Your task to perform on an android device: Open settings on Google Maps Image 0: 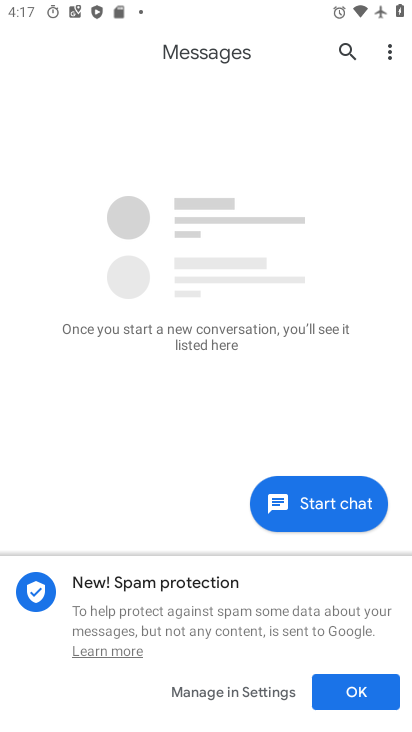
Step 0: press back button
Your task to perform on an android device: Open settings on Google Maps Image 1: 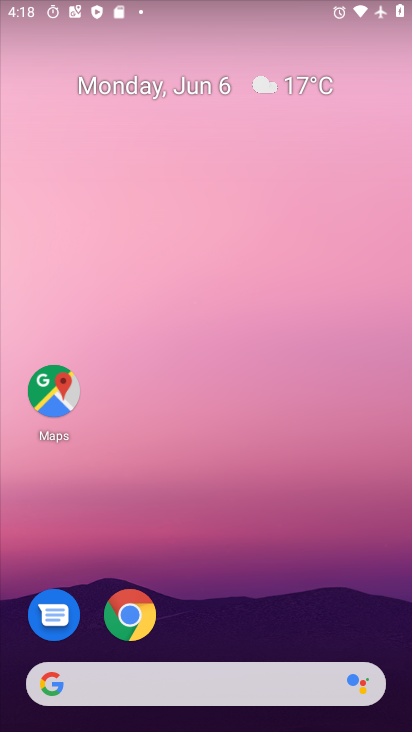
Step 1: click (48, 390)
Your task to perform on an android device: Open settings on Google Maps Image 2: 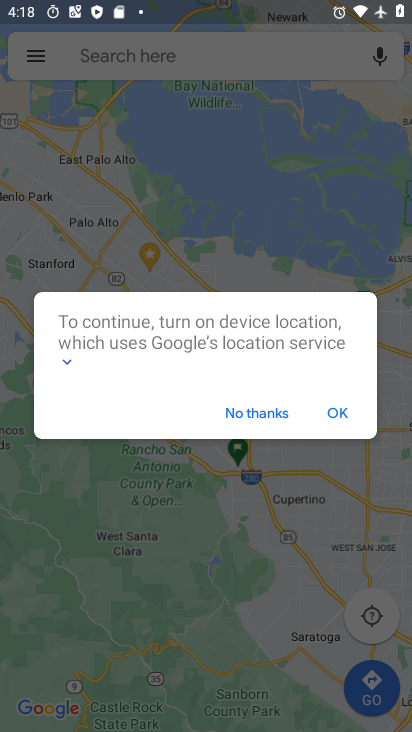
Step 2: click (335, 407)
Your task to perform on an android device: Open settings on Google Maps Image 3: 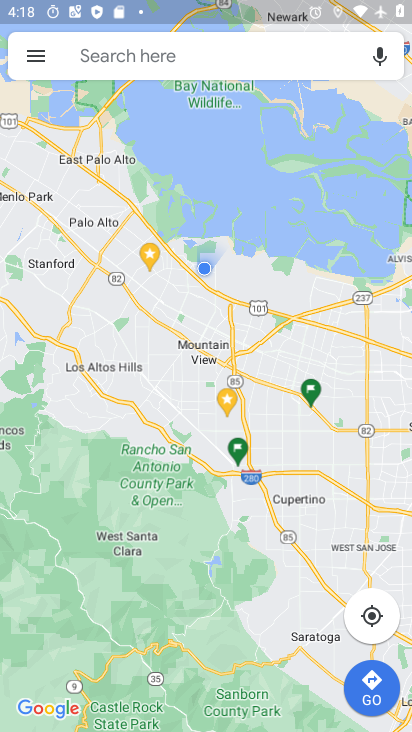
Step 3: click (30, 56)
Your task to perform on an android device: Open settings on Google Maps Image 4: 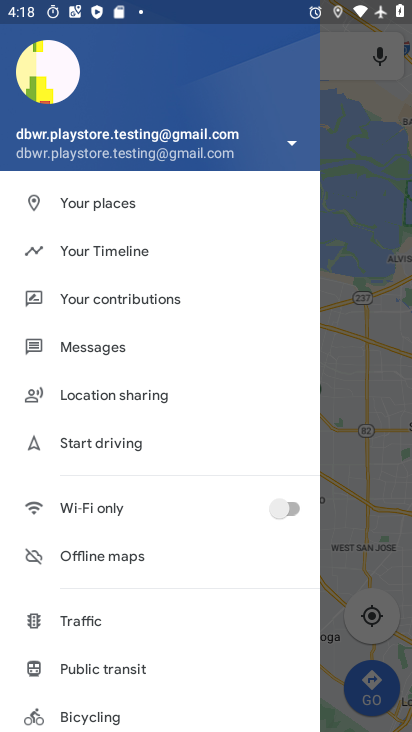
Step 4: drag from (151, 683) to (155, 327)
Your task to perform on an android device: Open settings on Google Maps Image 5: 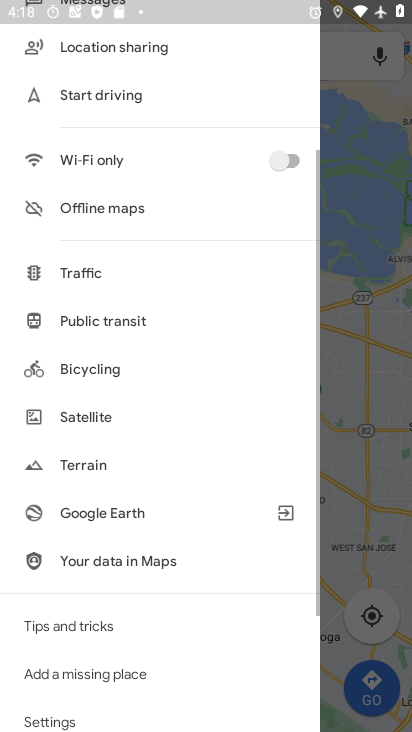
Step 5: drag from (119, 668) to (211, 278)
Your task to perform on an android device: Open settings on Google Maps Image 6: 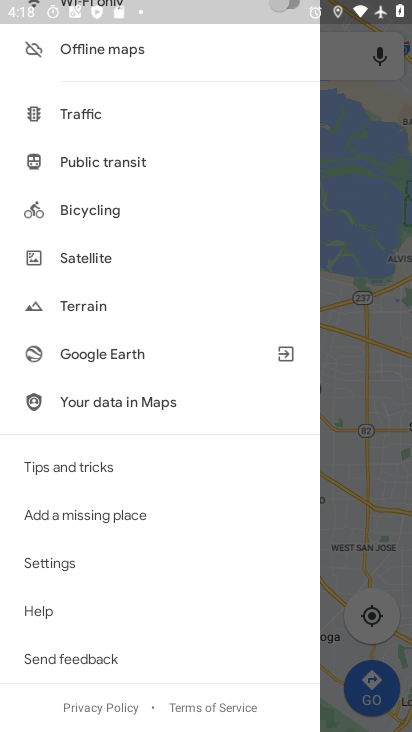
Step 6: click (89, 568)
Your task to perform on an android device: Open settings on Google Maps Image 7: 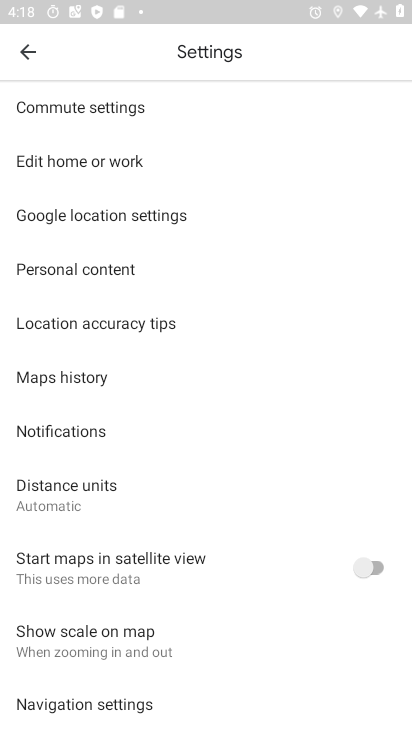
Step 7: task complete